Your task to perform on an android device: Go to location settings Image 0: 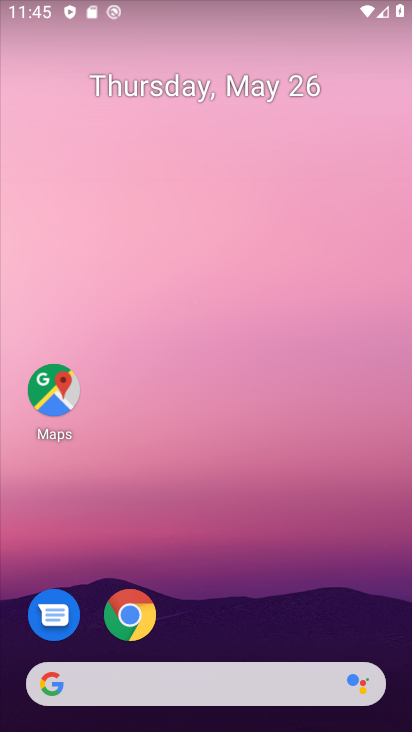
Step 0: drag from (240, 670) to (355, 90)
Your task to perform on an android device: Go to location settings Image 1: 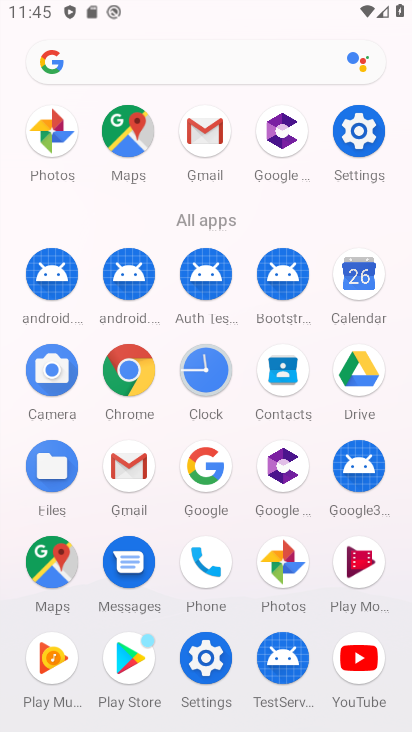
Step 1: drag from (189, 659) to (194, 707)
Your task to perform on an android device: Go to location settings Image 2: 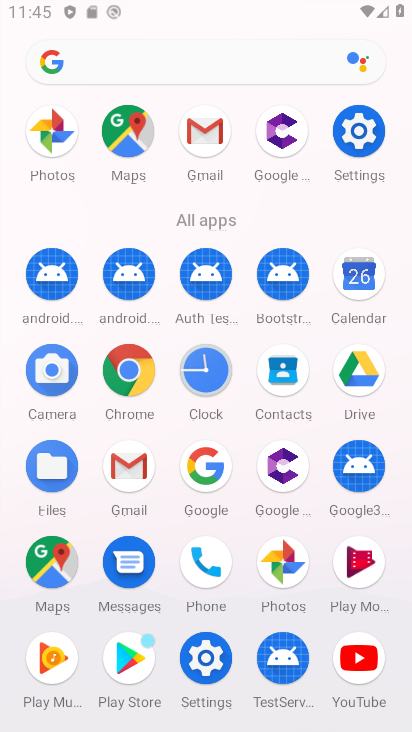
Step 2: click (214, 664)
Your task to perform on an android device: Go to location settings Image 3: 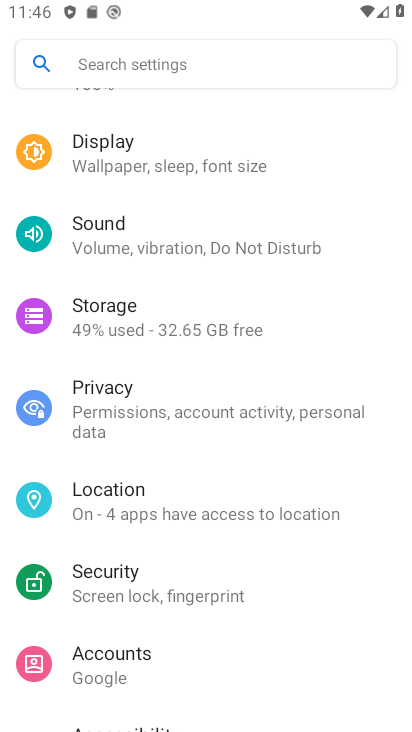
Step 3: click (216, 512)
Your task to perform on an android device: Go to location settings Image 4: 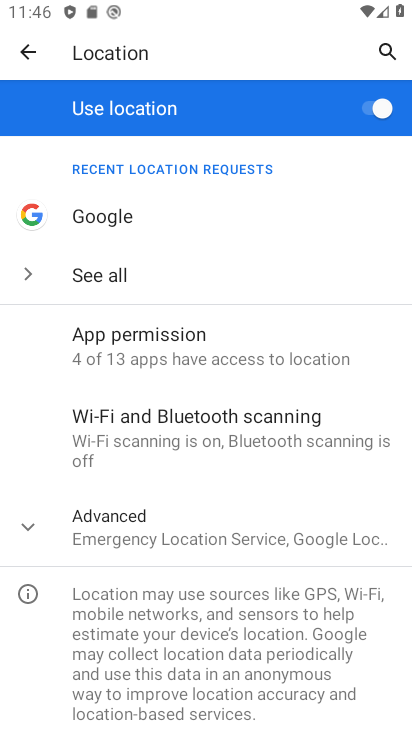
Step 4: task complete